Your task to perform on an android device: see tabs open on other devices in the chrome app Image 0: 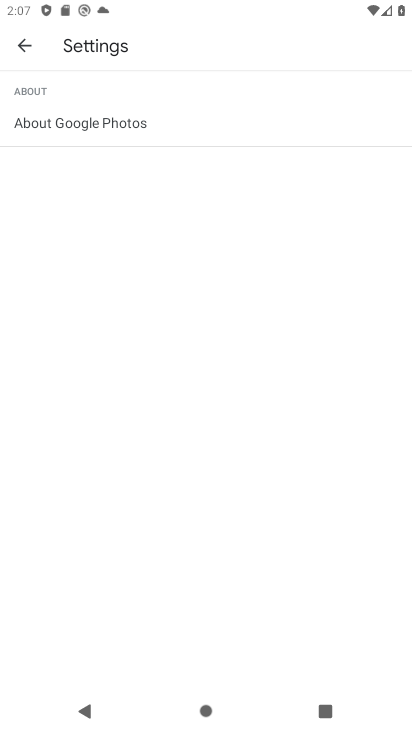
Step 0: press home button
Your task to perform on an android device: see tabs open on other devices in the chrome app Image 1: 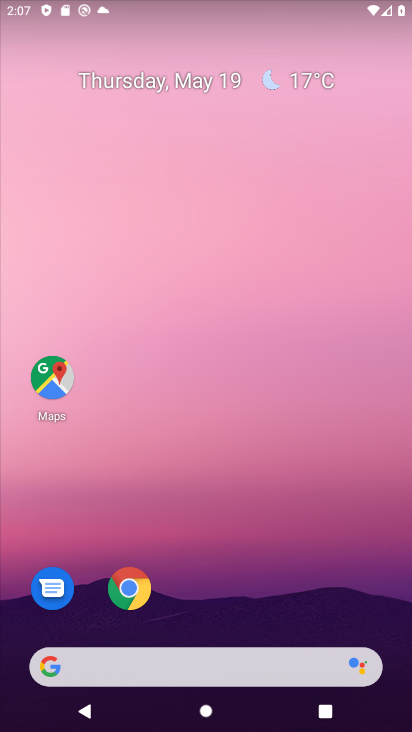
Step 1: click (126, 585)
Your task to perform on an android device: see tabs open on other devices in the chrome app Image 2: 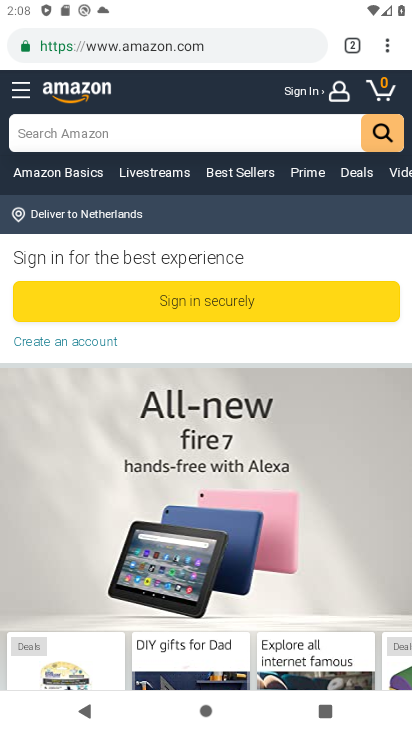
Step 2: task complete